Your task to perform on an android device: turn on bluetooth scan Image 0: 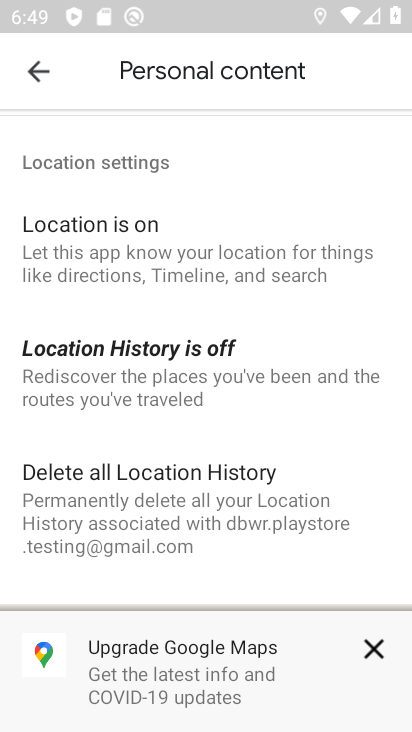
Step 0: press home button
Your task to perform on an android device: turn on bluetooth scan Image 1: 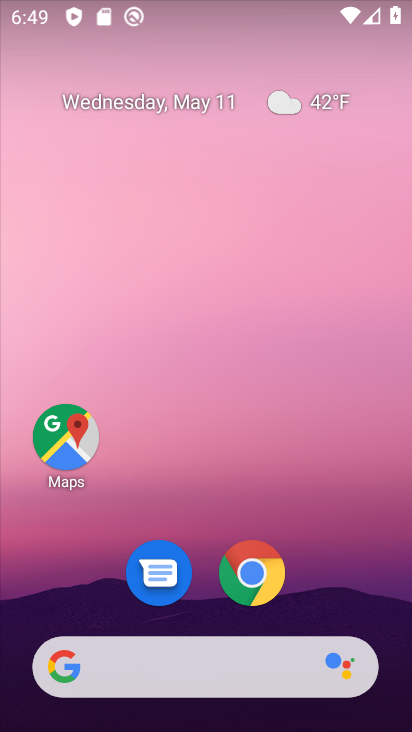
Step 1: drag from (307, 603) to (307, 213)
Your task to perform on an android device: turn on bluetooth scan Image 2: 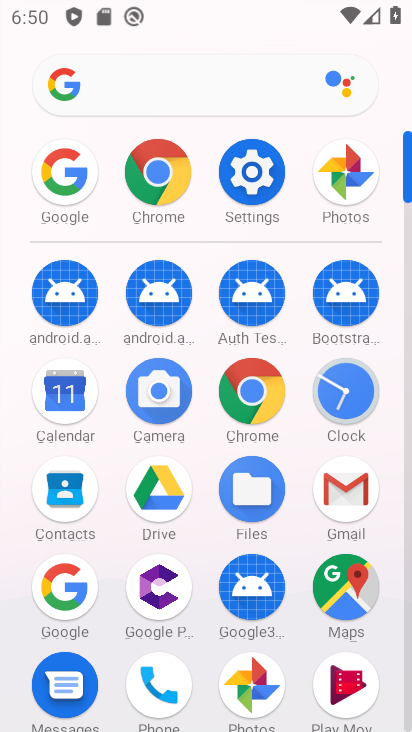
Step 2: click (266, 199)
Your task to perform on an android device: turn on bluetooth scan Image 3: 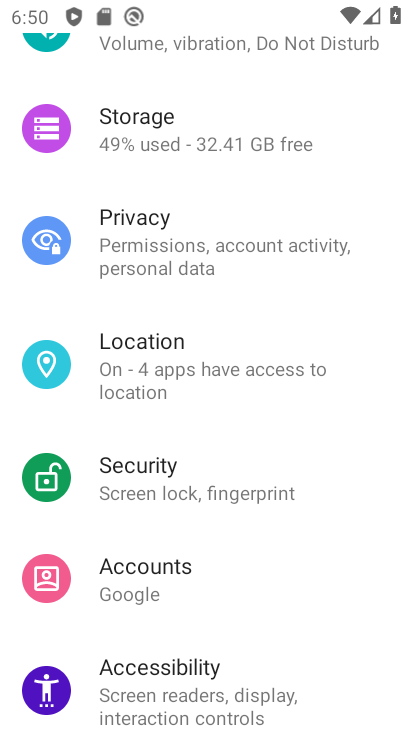
Step 3: drag from (249, 278) to (249, 549)
Your task to perform on an android device: turn on bluetooth scan Image 4: 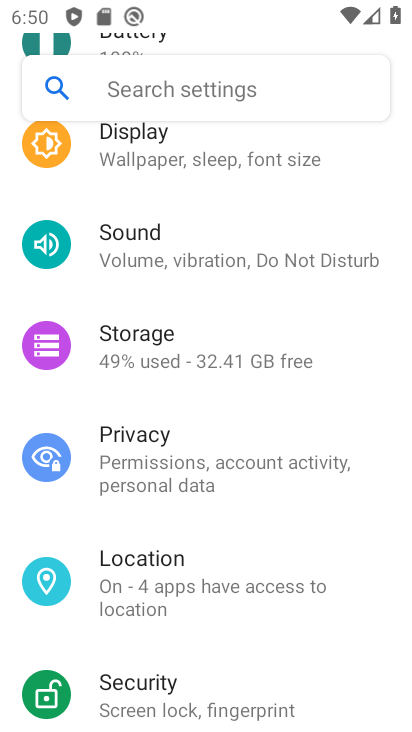
Step 4: drag from (277, 397) to (257, 594)
Your task to perform on an android device: turn on bluetooth scan Image 5: 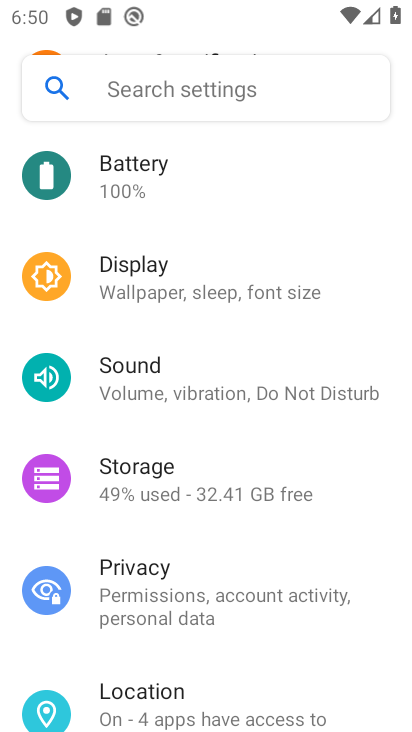
Step 5: drag from (283, 339) to (258, 579)
Your task to perform on an android device: turn on bluetooth scan Image 6: 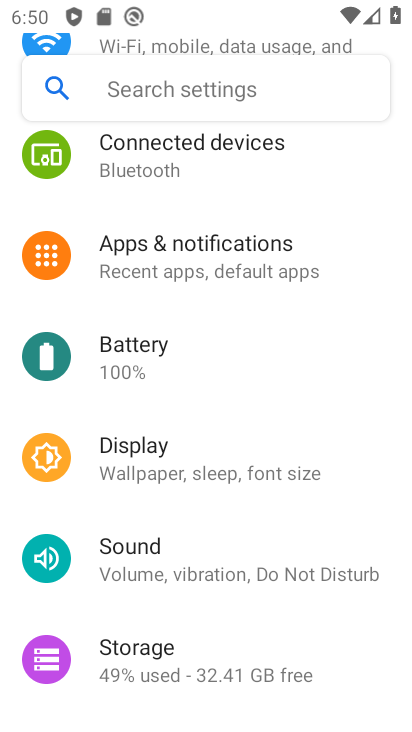
Step 6: drag from (238, 676) to (277, 353)
Your task to perform on an android device: turn on bluetooth scan Image 7: 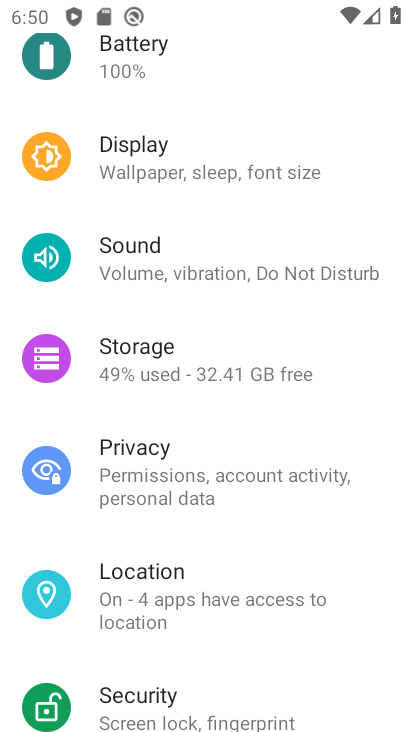
Step 7: drag from (249, 667) to (264, 395)
Your task to perform on an android device: turn on bluetooth scan Image 8: 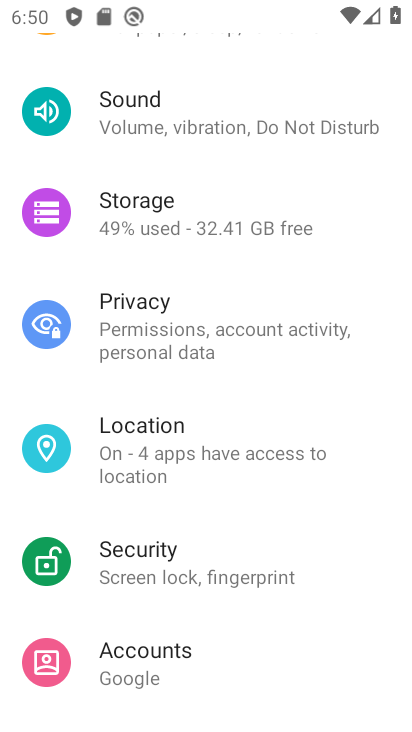
Step 8: click (202, 474)
Your task to perform on an android device: turn on bluetooth scan Image 9: 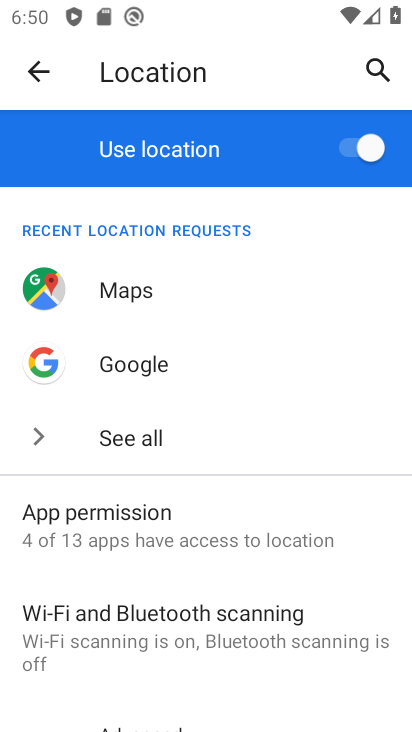
Step 9: click (98, 637)
Your task to perform on an android device: turn on bluetooth scan Image 10: 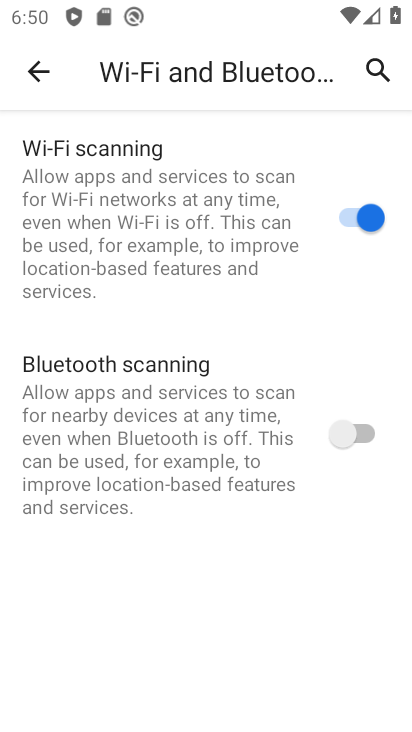
Step 10: click (386, 439)
Your task to perform on an android device: turn on bluetooth scan Image 11: 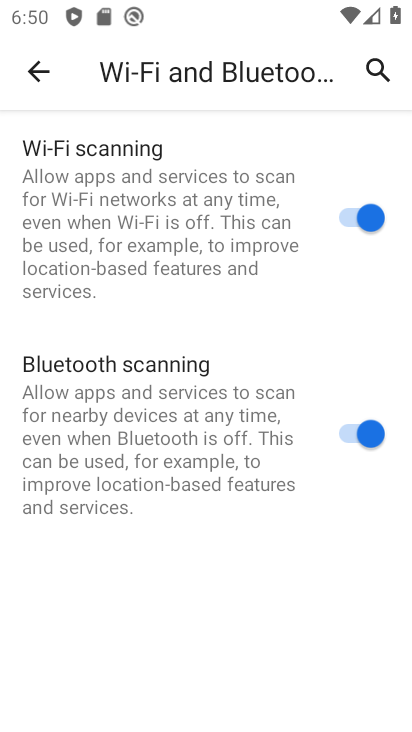
Step 11: task complete